Your task to perform on an android device: Open settings on Google Maps Image 0: 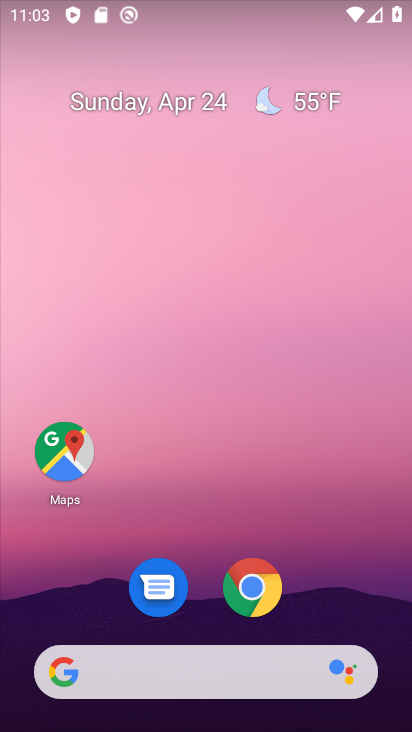
Step 0: drag from (332, 592) to (331, 97)
Your task to perform on an android device: Open settings on Google Maps Image 1: 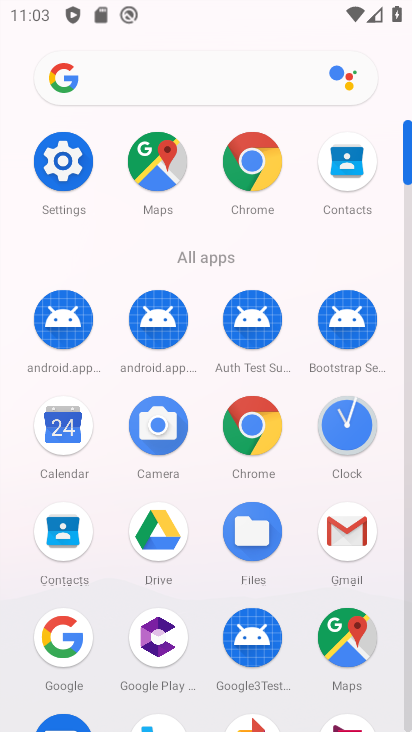
Step 1: click (358, 620)
Your task to perform on an android device: Open settings on Google Maps Image 2: 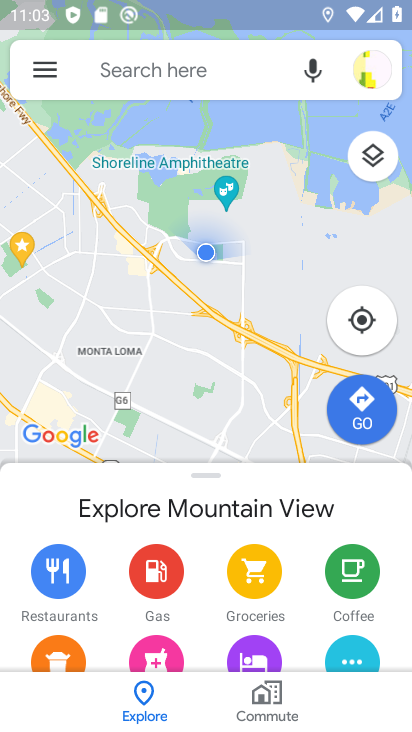
Step 2: click (42, 64)
Your task to perform on an android device: Open settings on Google Maps Image 3: 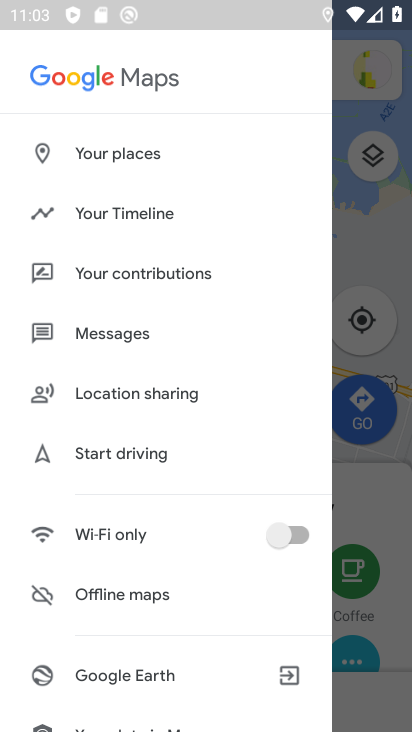
Step 3: drag from (151, 707) to (249, 38)
Your task to perform on an android device: Open settings on Google Maps Image 4: 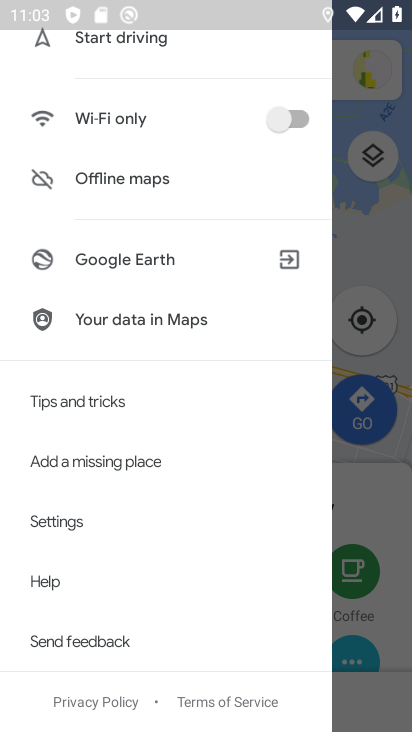
Step 4: click (77, 528)
Your task to perform on an android device: Open settings on Google Maps Image 5: 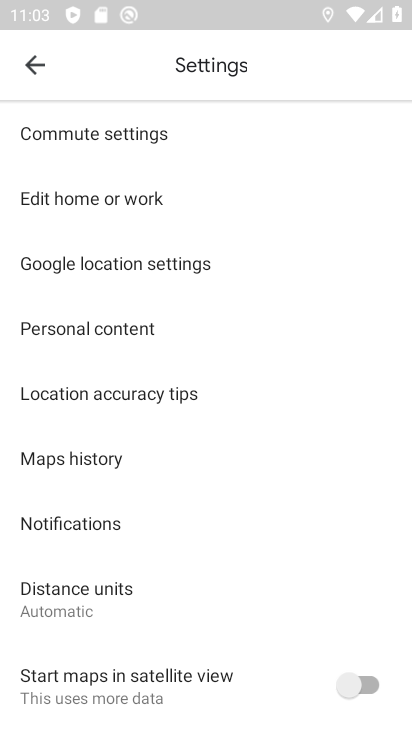
Step 5: task complete